Your task to perform on an android device: Show me popular videos on Youtube Image 0: 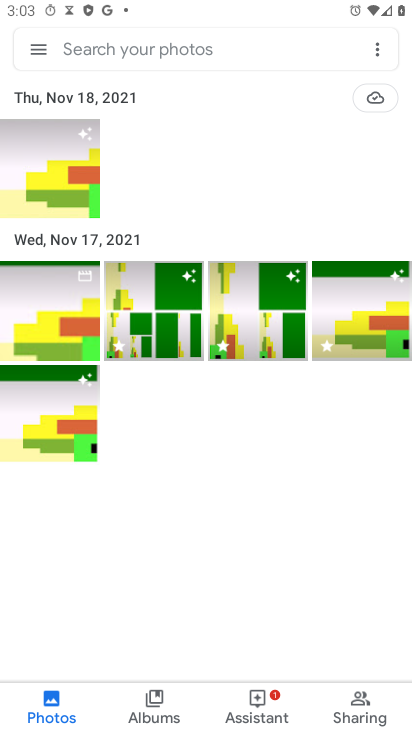
Step 0: press home button
Your task to perform on an android device: Show me popular videos on Youtube Image 1: 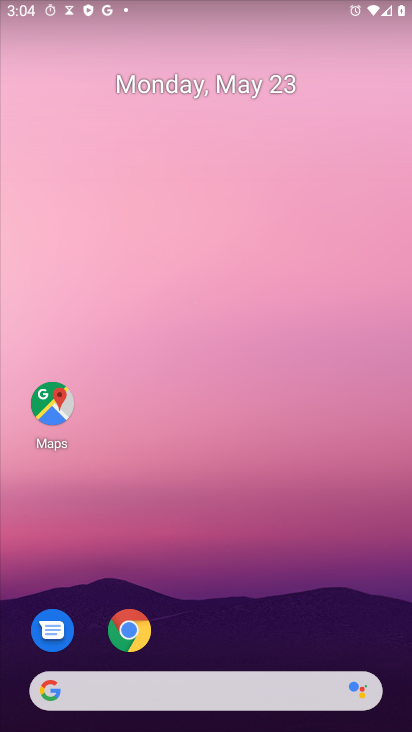
Step 1: drag from (258, 625) to (316, 14)
Your task to perform on an android device: Show me popular videos on Youtube Image 2: 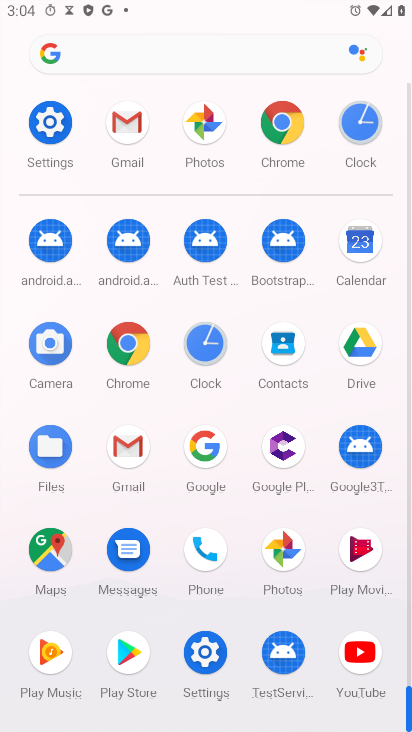
Step 2: click (352, 637)
Your task to perform on an android device: Show me popular videos on Youtube Image 3: 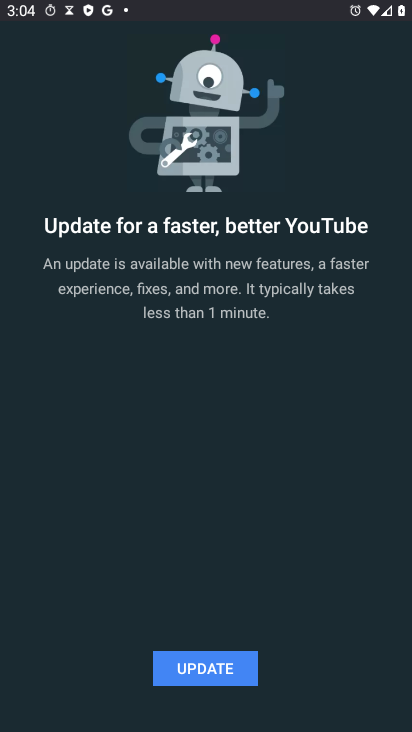
Step 3: click (224, 670)
Your task to perform on an android device: Show me popular videos on Youtube Image 4: 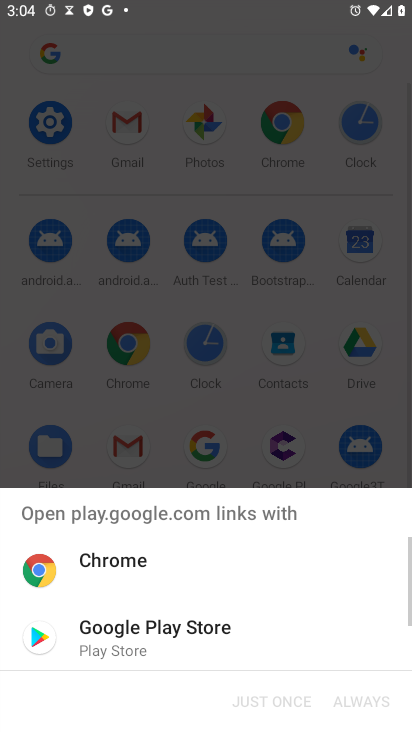
Step 4: click (119, 646)
Your task to perform on an android device: Show me popular videos on Youtube Image 5: 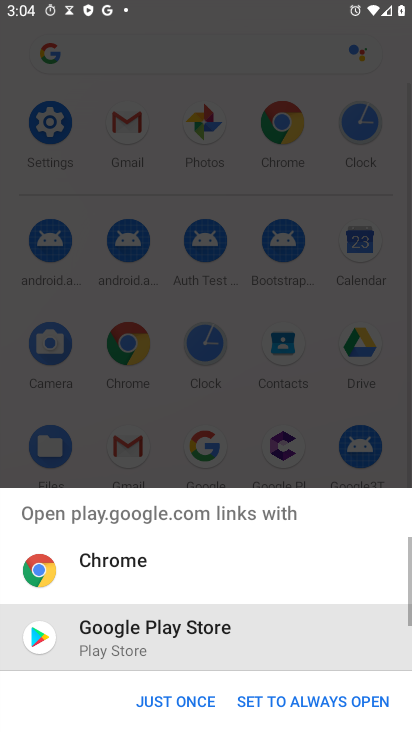
Step 5: click (189, 697)
Your task to perform on an android device: Show me popular videos on Youtube Image 6: 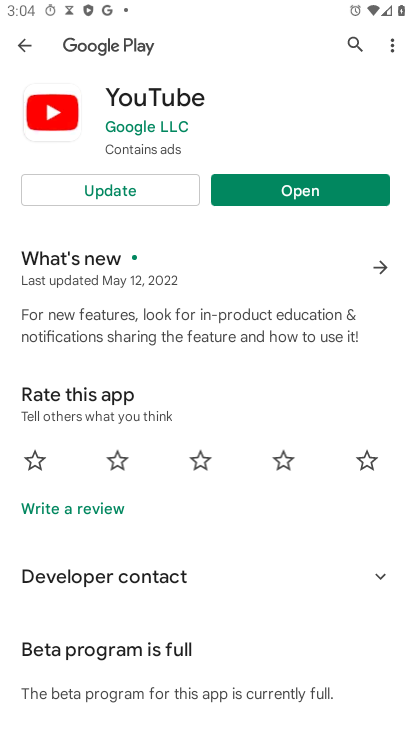
Step 6: click (132, 185)
Your task to perform on an android device: Show me popular videos on Youtube Image 7: 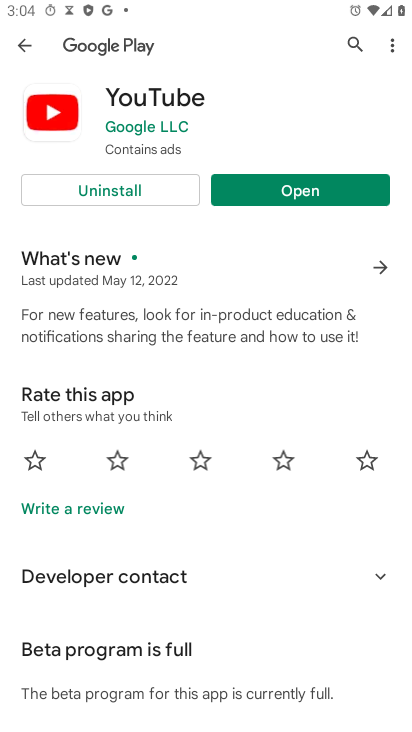
Step 7: click (295, 191)
Your task to perform on an android device: Show me popular videos on Youtube Image 8: 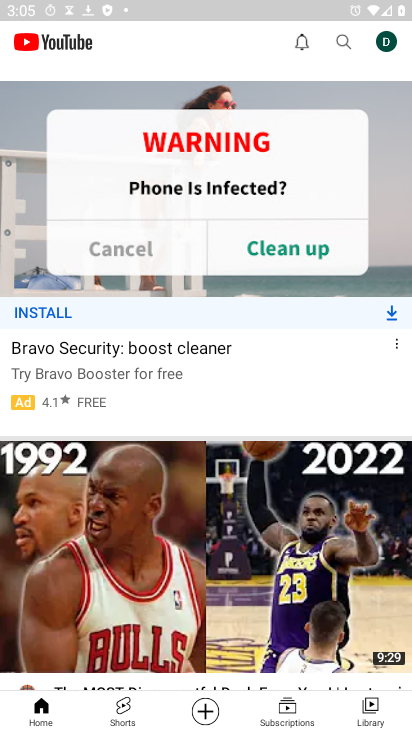
Step 8: drag from (305, 519) to (284, 274)
Your task to perform on an android device: Show me popular videos on Youtube Image 9: 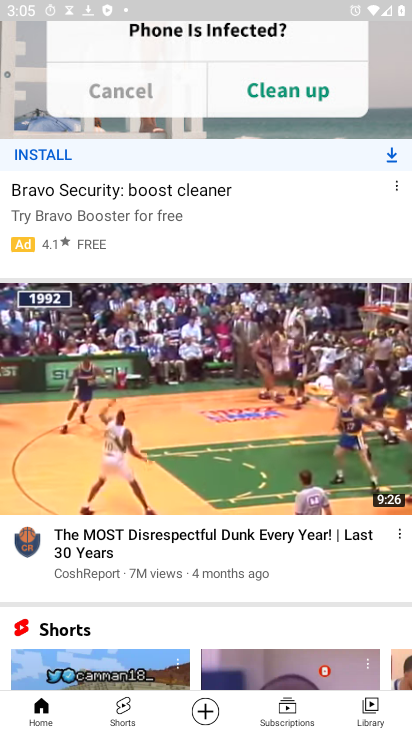
Step 9: drag from (328, 554) to (369, 113)
Your task to perform on an android device: Show me popular videos on Youtube Image 10: 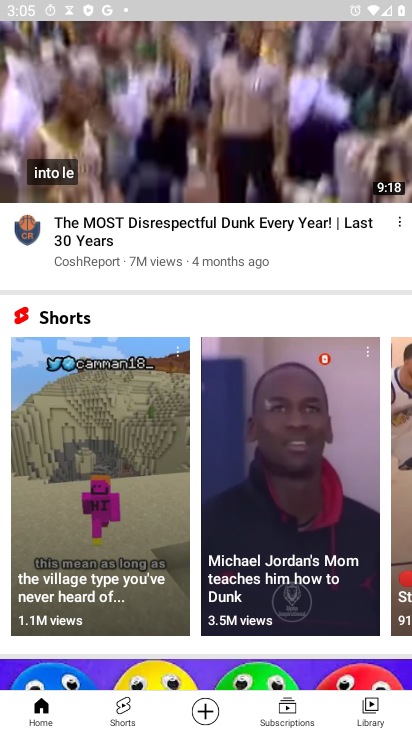
Step 10: drag from (237, 234) to (206, 604)
Your task to perform on an android device: Show me popular videos on Youtube Image 11: 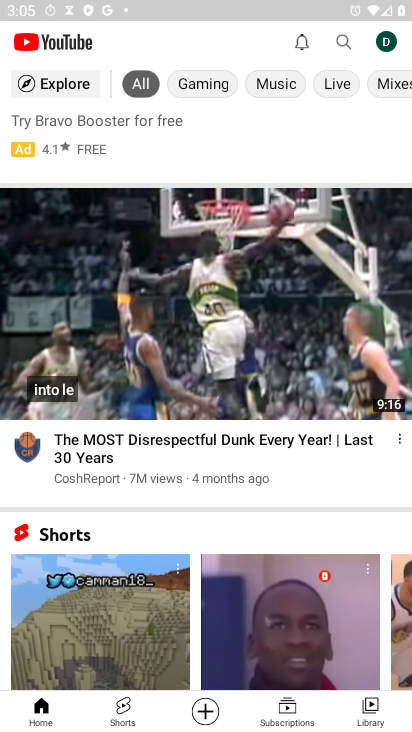
Step 11: click (338, 42)
Your task to perform on an android device: Show me popular videos on Youtube Image 12: 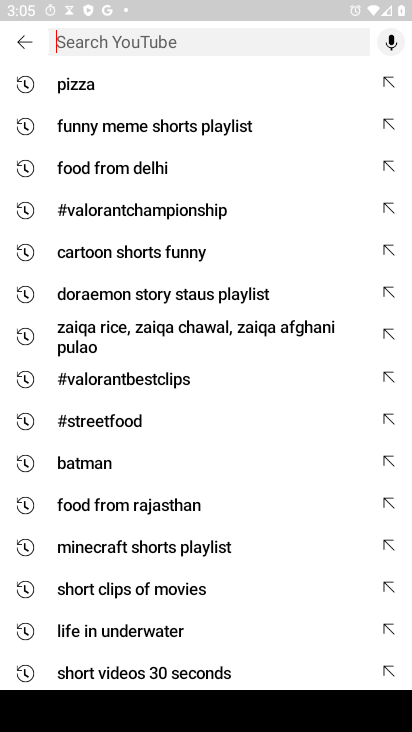
Step 12: type "popular vidoes "
Your task to perform on an android device: Show me popular videos on Youtube Image 13: 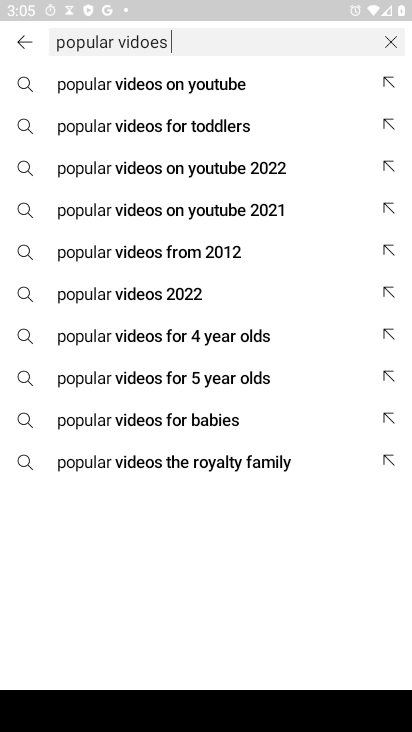
Step 13: press enter
Your task to perform on an android device: Show me popular videos on Youtube Image 14: 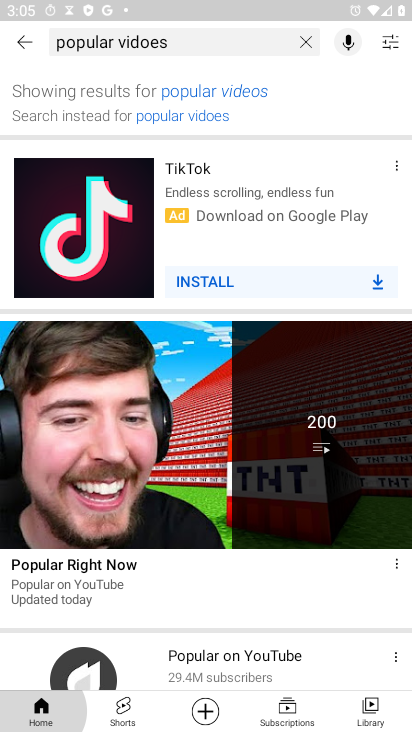
Step 14: task complete